Your task to perform on an android device: Open privacy settings Image 0: 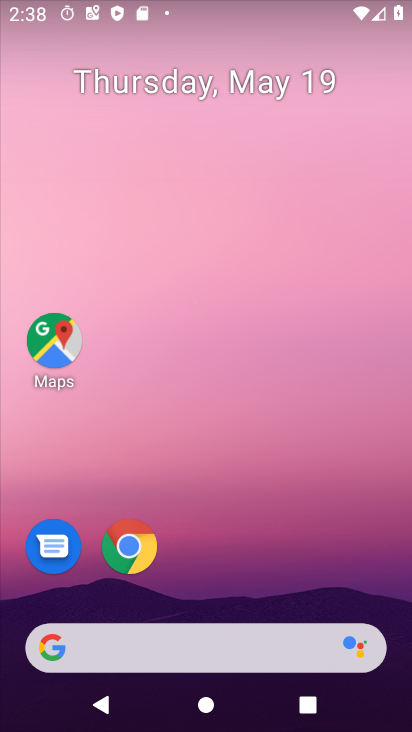
Step 0: drag from (147, 609) to (187, 142)
Your task to perform on an android device: Open privacy settings Image 1: 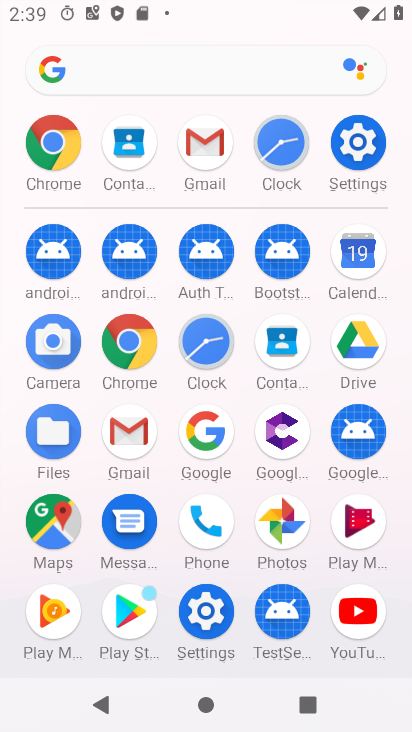
Step 1: click (358, 147)
Your task to perform on an android device: Open privacy settings Image 2: 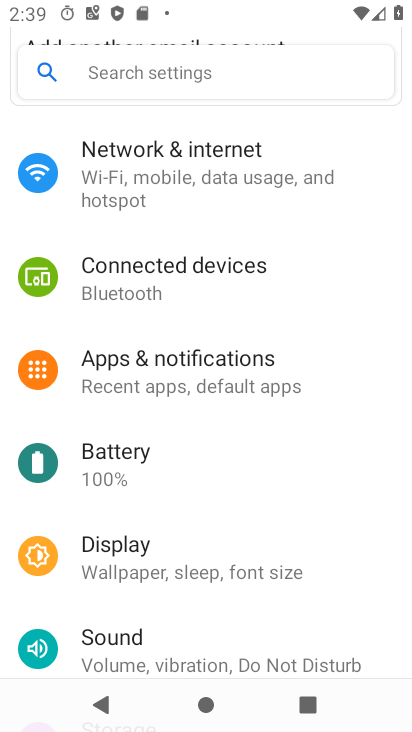
Step 2: drag from (139, 515) to (225, 263)
Your task to perform on an android device: Open privacy settings Image 3: 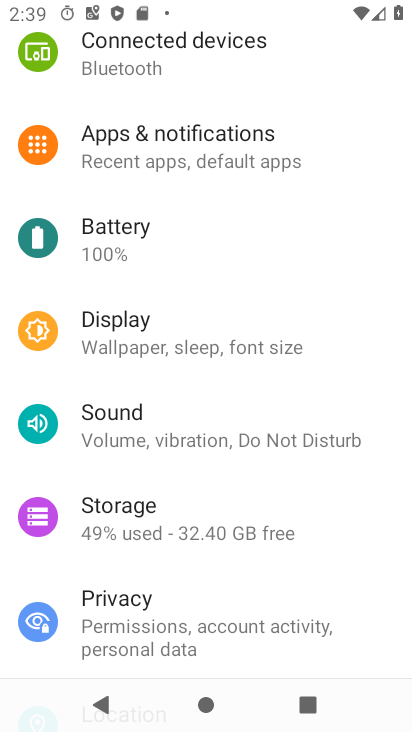
Step 3: click (139, 629)
Your task to perform on an android device: Open privacy settings Image 4: 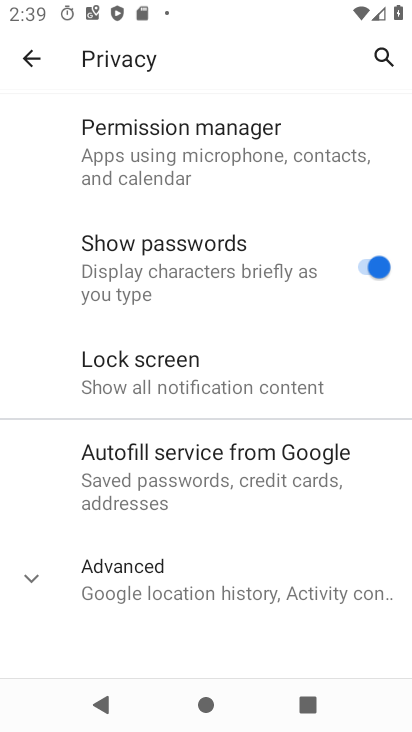
Step 4: task complete